Your task to perform on an android device: add a contact Image 0: 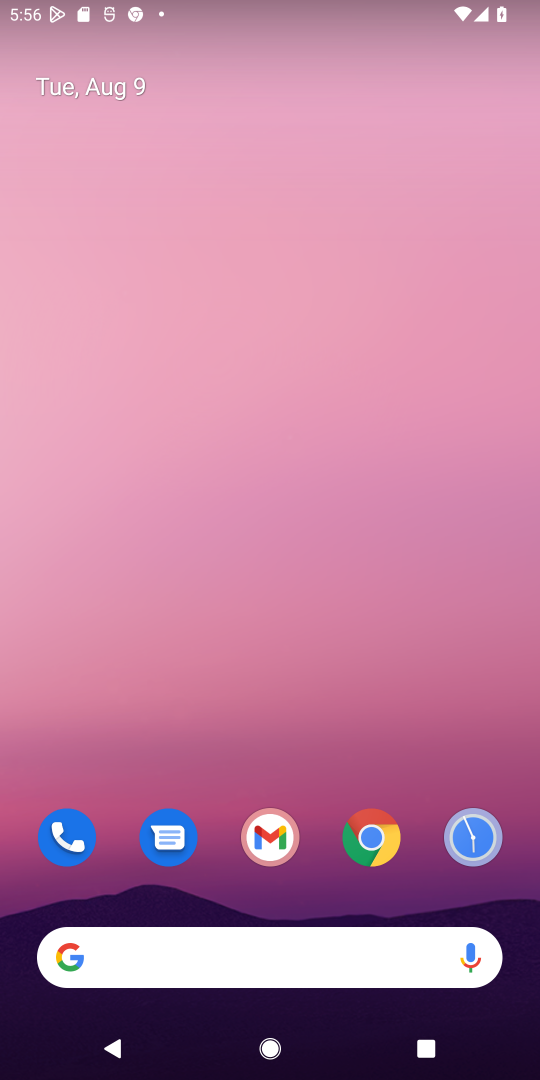
Step 0: drag from (385, 950) to (321, 186)
Your task to perform on an android device: add a contact Image 1: 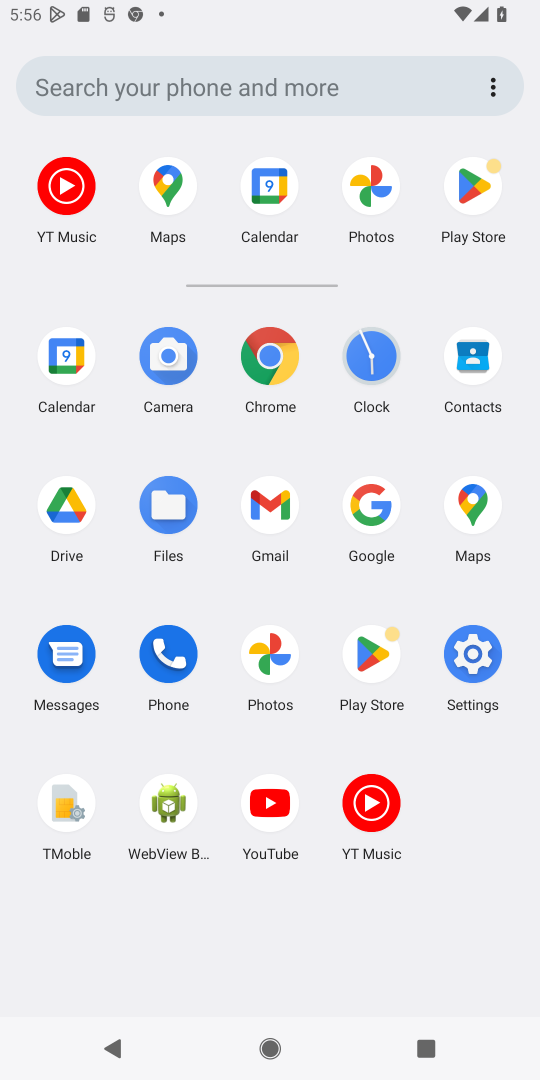
Step 1: click (484, 342)
Your task to perform on an android device: add a contact Image 2: 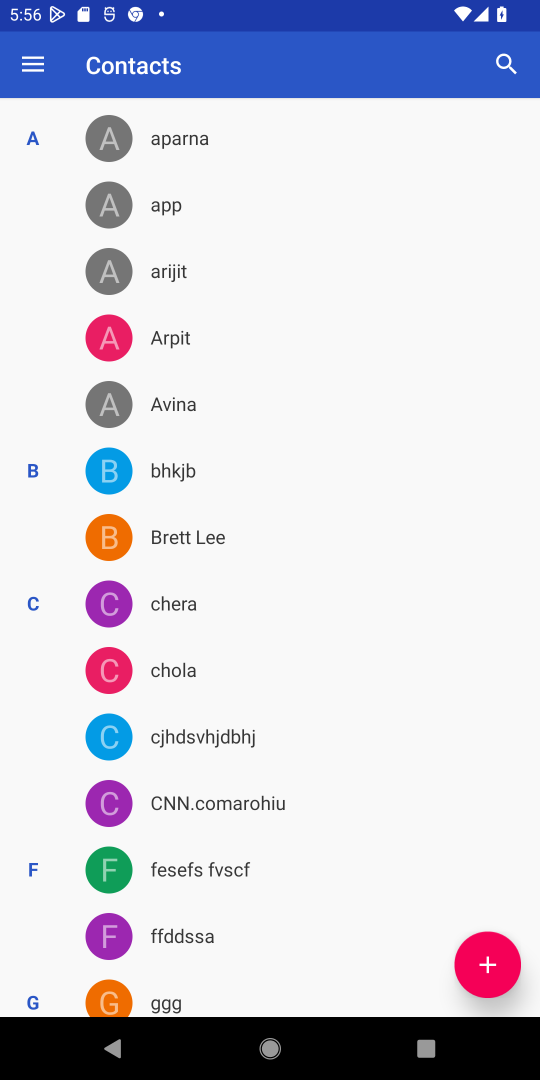
Step 2: drag from (226, 129) to (169, 929)
Your task to perform on an android device: add a contact Image 3: 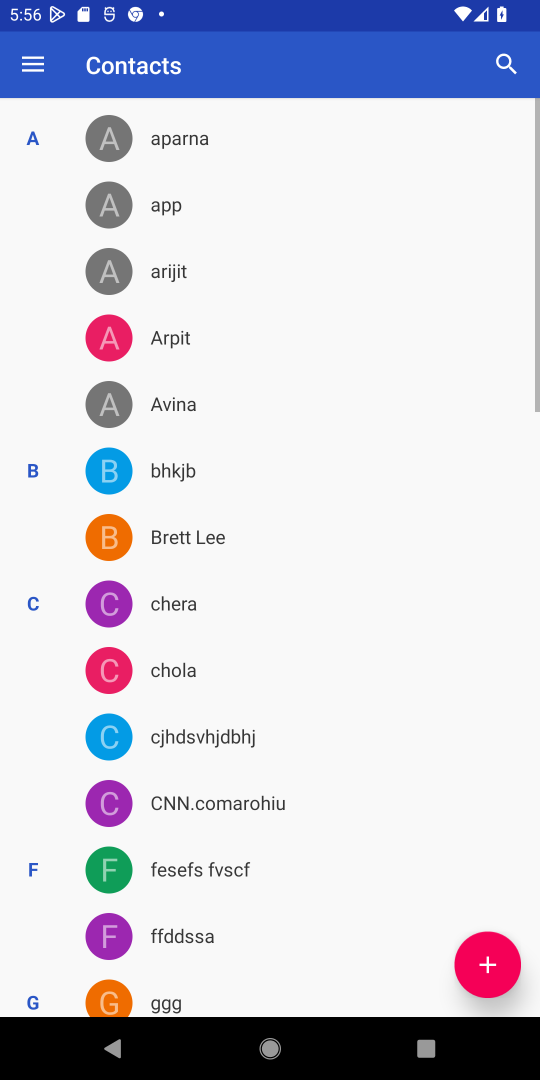
Step 3: click (499, 957)
Your task to perform on an android device: add a contact Image 4: 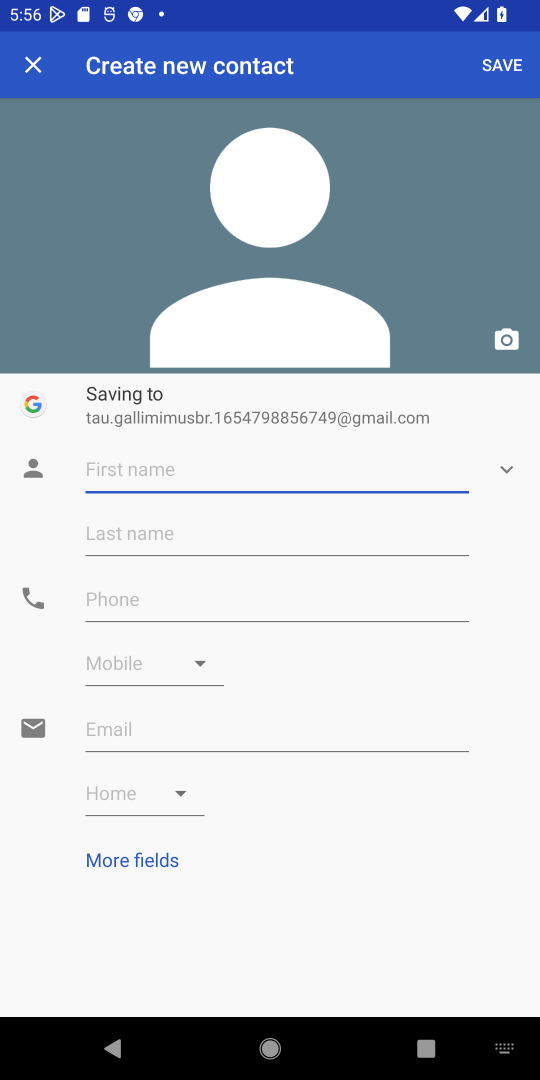
Step 4: click (215, 461)
Your task to perform on an android device: add a contact Image 5: 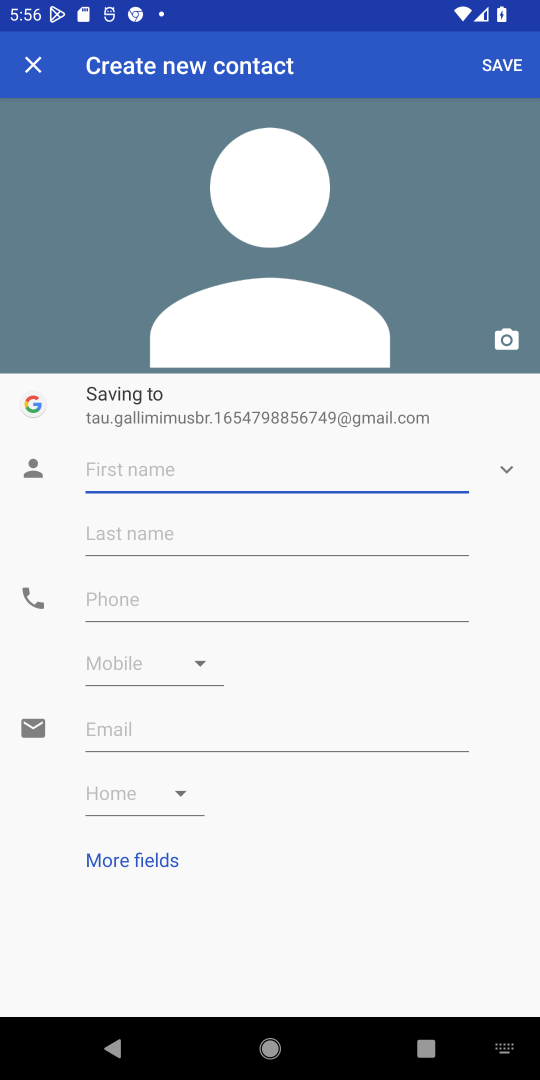
Step 5: type "mmmkmkmkmkmk "
Your task to perform on an android device: add a contact Image 6: 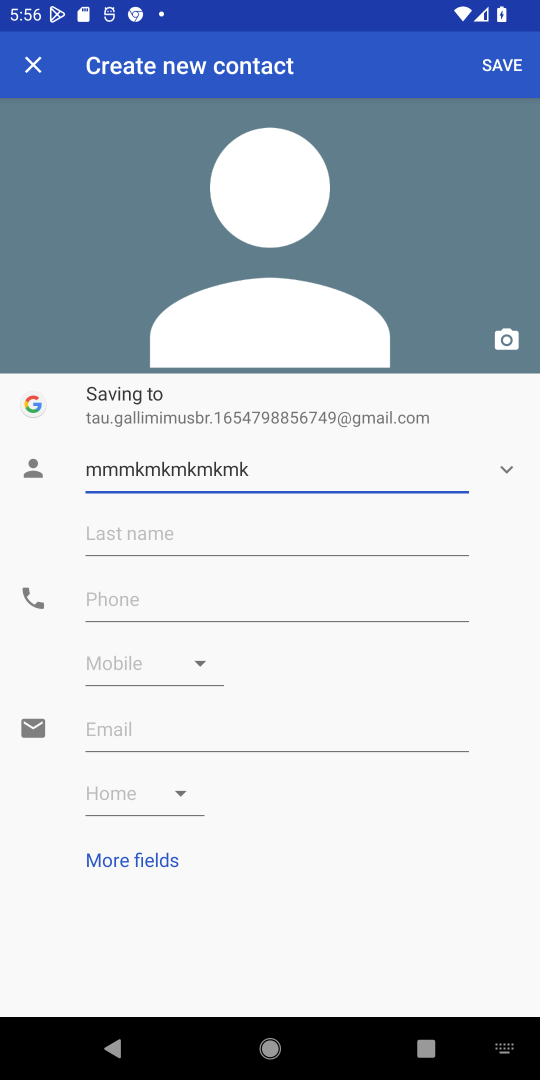
Step 6: click (132, 598)
Your task to perform on an android device: add a contact Image 7: 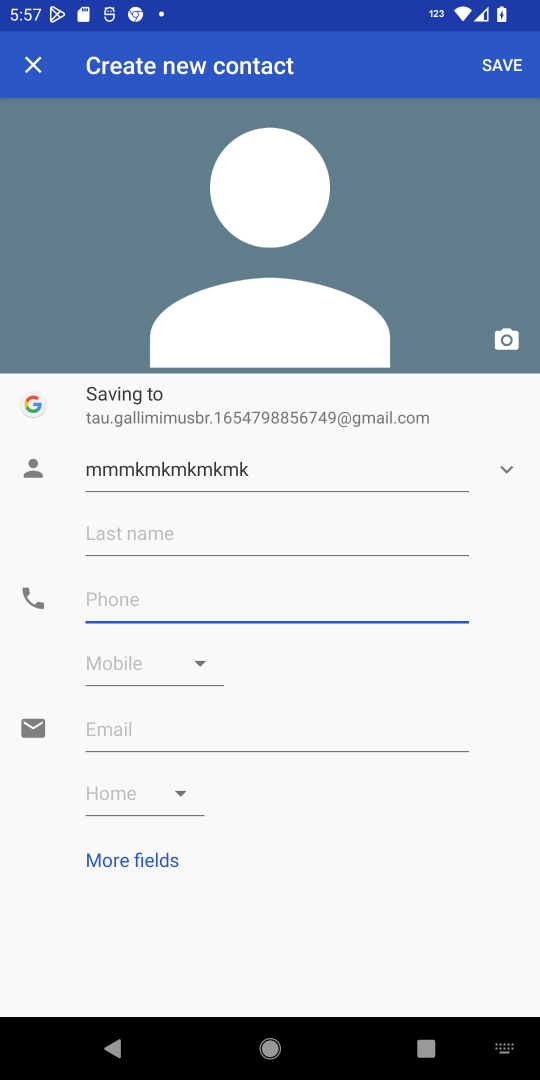
Step 7: type "88888888888888 "
Your task to perform on an android device: add a contact Image 8: 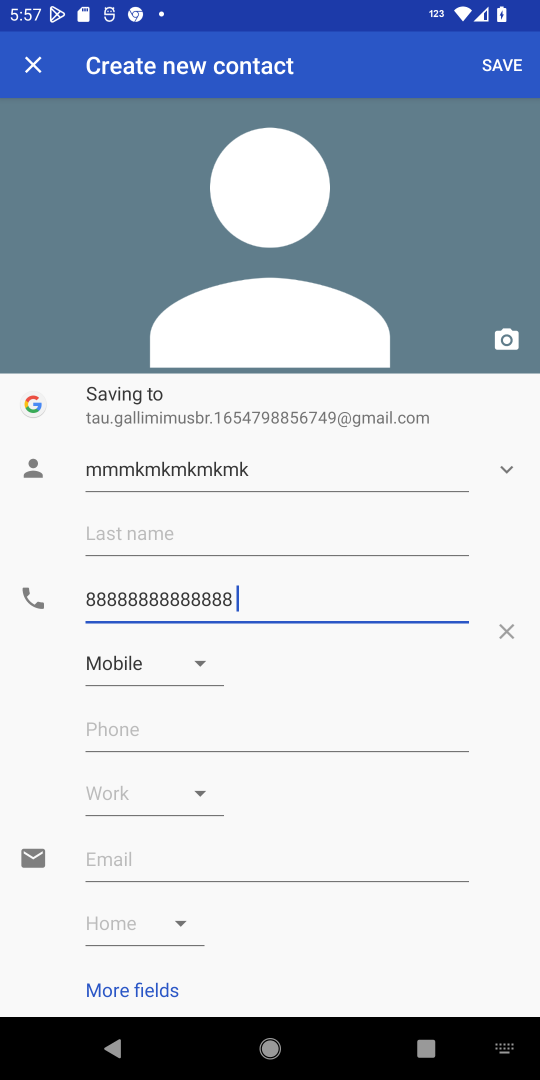
Step 8: click (520, 43)
Your task to perform on an android device: add a contact Image 9: 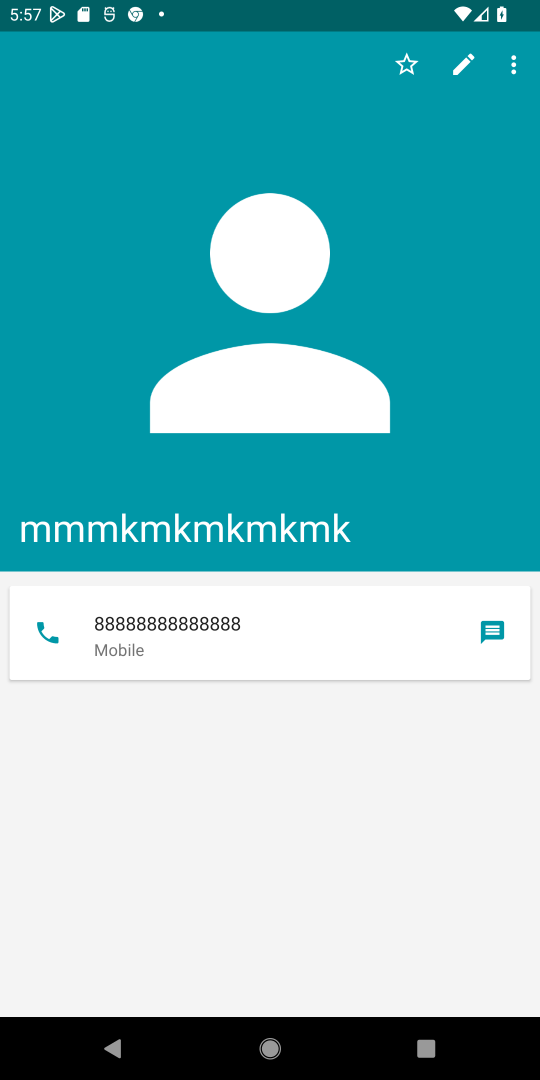
Step 9: task complete